Your task to perform on an android device: When is my next appointment? Image 0: 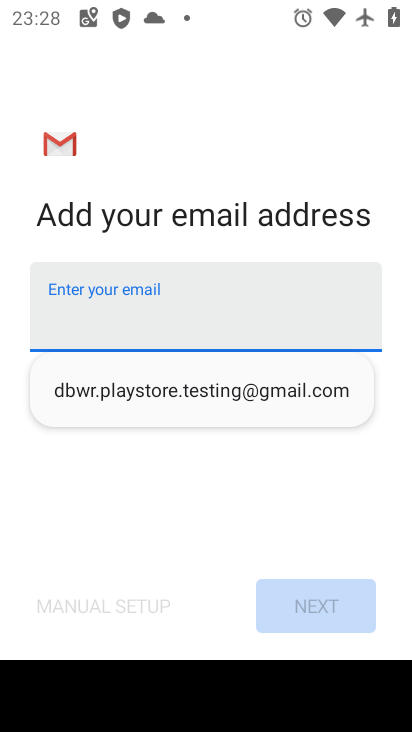
Step 0: press home button
Your task to perform on an android device: When is my next appointment? Image 1: 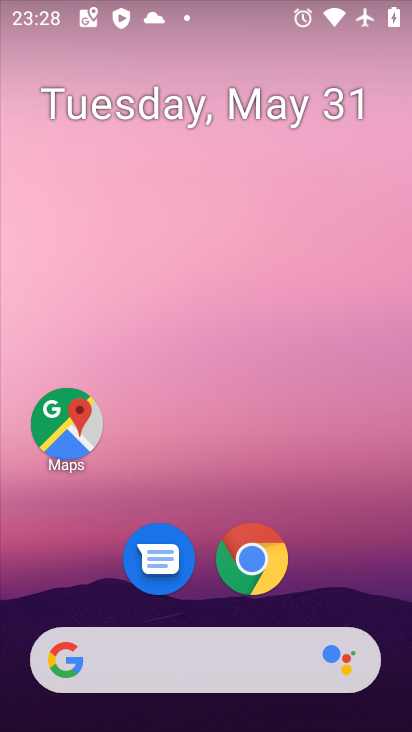
Step 1: drag from (320, 556) to (321, 77)
Your task to perform on an android device: When is my next appointment? Image 2: 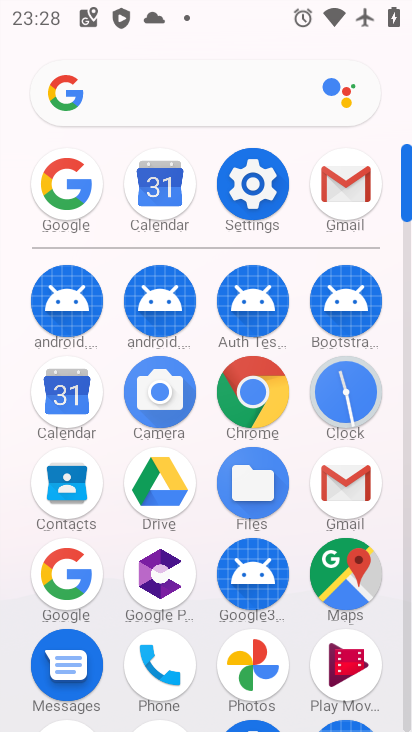
Step 2: click (62, 400)
Your task to perform on an android device: When is my next appointment? Image 3: 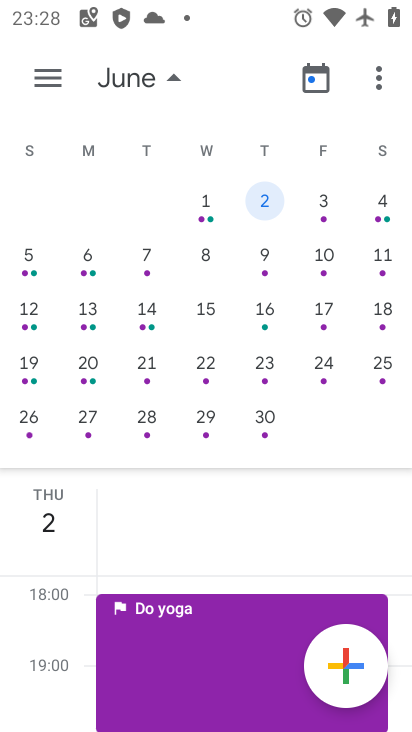
Step 3: click (321, 201)
Your task to perform on an android device: When is my next appointment? Image 4: 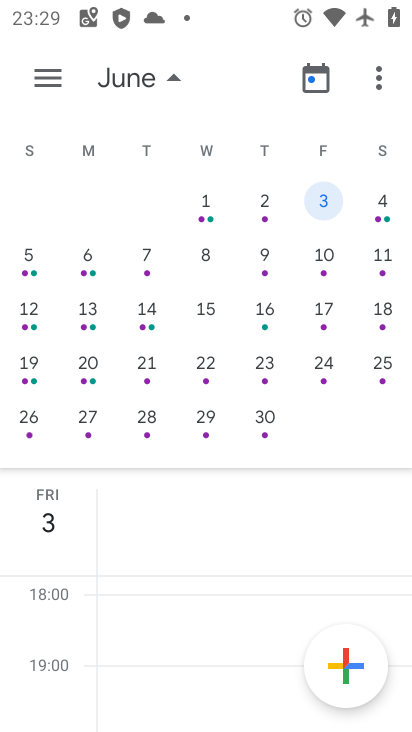
Step 4: task complete